Your task to perform on an android device: Do I have any events tomorrow? Image 0: 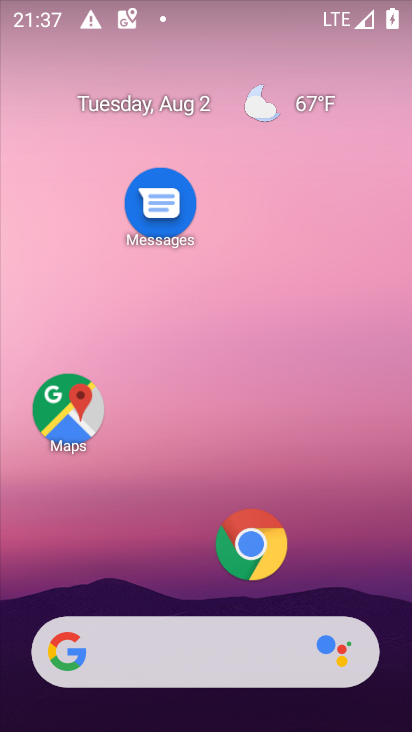
Step 0: drag from (179, 584) to (183, 224)
Your task to perform on an android device: Do I have any events tomorrow? Image 1: 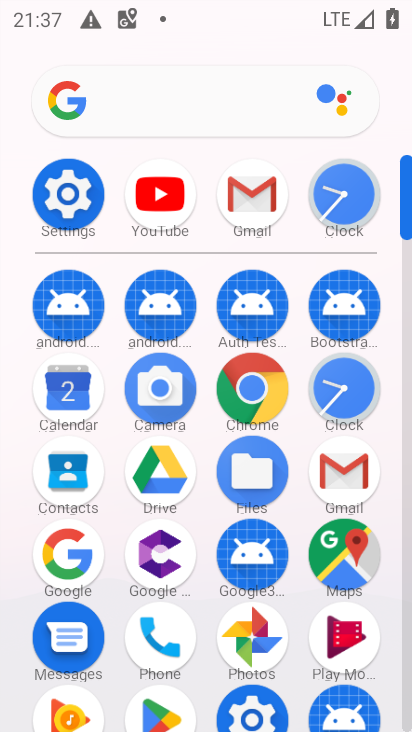
Step 1: click (61, 413)
Your task to perform on an android device: Do I have any events tomorrow? Image 2: 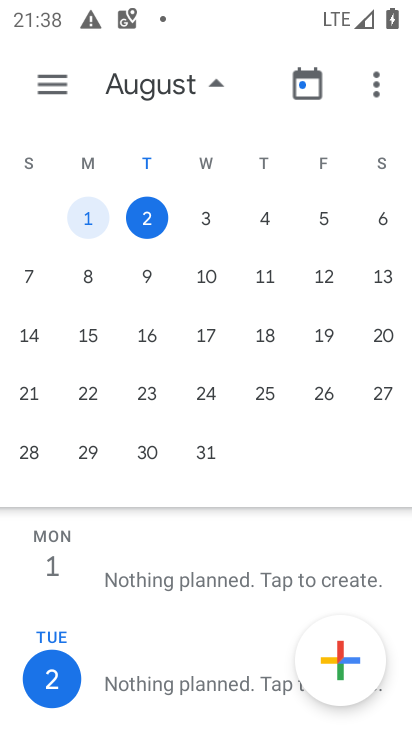
Step 2: click (192, 223)
Your task to perform on an android device: Do I have any events tomorrow? Image 3: 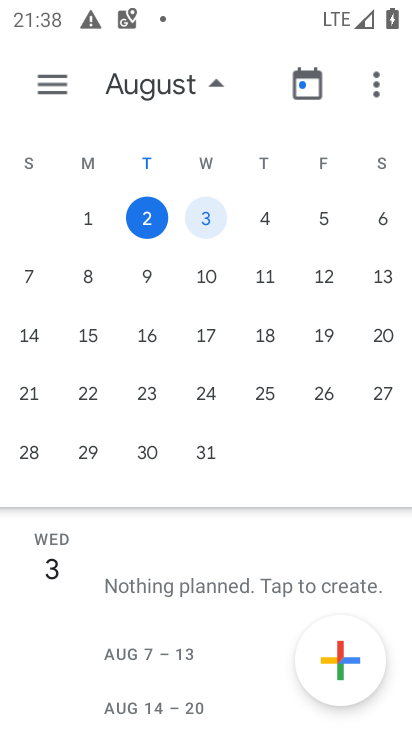
Step 3: task complete